Your task to perform on an android device: Open Maps and search for coffee Image 0: 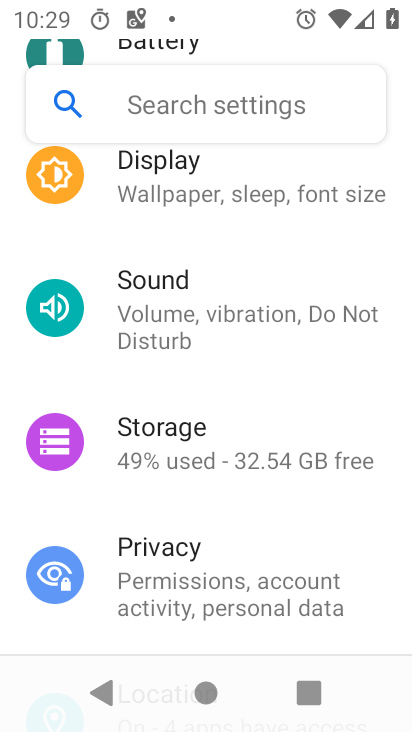
Step 0: press home button
Your task to perform on an android device: Open Maps and search for coffee Image 1: 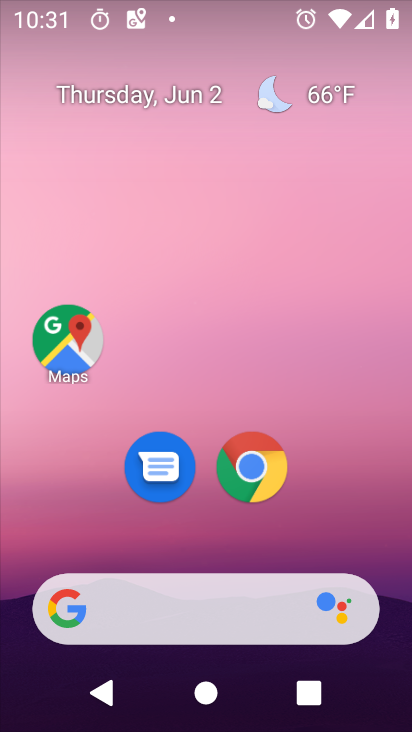
Step 1: click (70, 351)
Your task to perform on an android device: Open Maps and search for coffee Image 2: 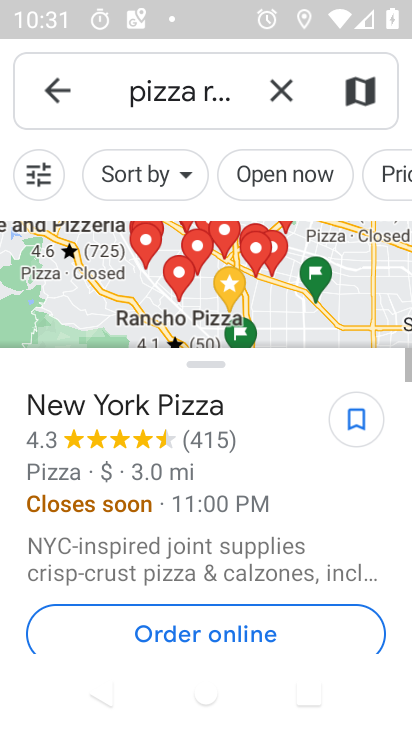
Step 2: click (278, 88)
Your task to perform on an android device: Open Maps and search for coffee Image 3: 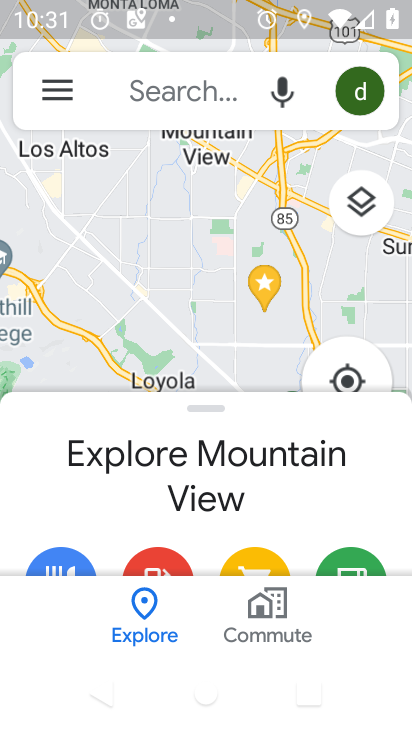
Step 3: click (203, 71)
Your task to perform on an android device: Open Maps and search for coffee Image 4: 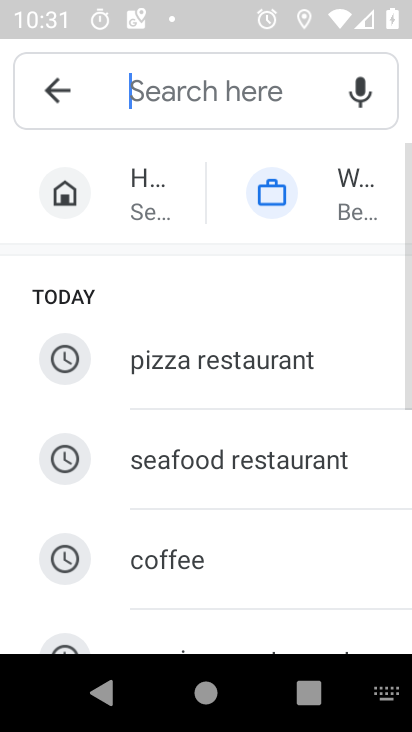
Step 4: click (190, 564)
Your task to perform on an android device: Open Maps and search for coffee Image 5: 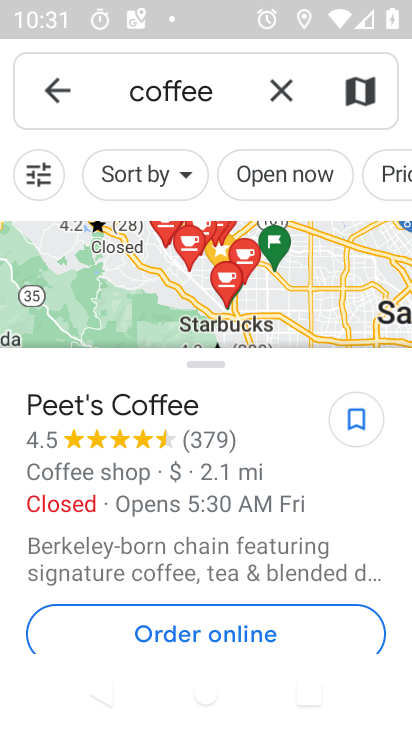
Step 5: task complete